Your task to perform on an android device: Open calendar and show me the first week of next month Image 0: 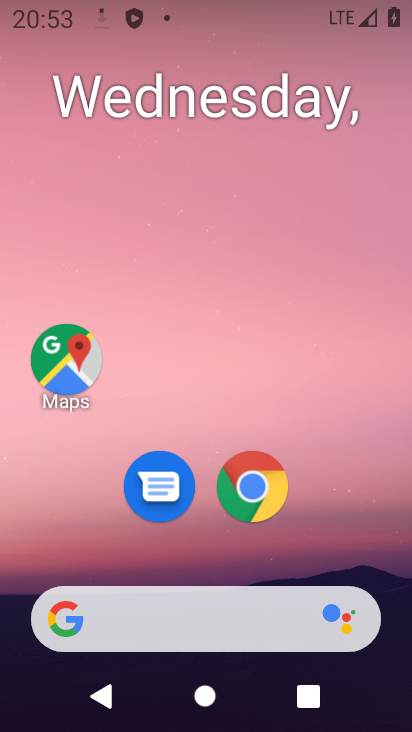
Step 0: drag from (210, 583) to (271, 11)
Your task to perform on an android device: Open calendar and show me the first week of next month Image 1: 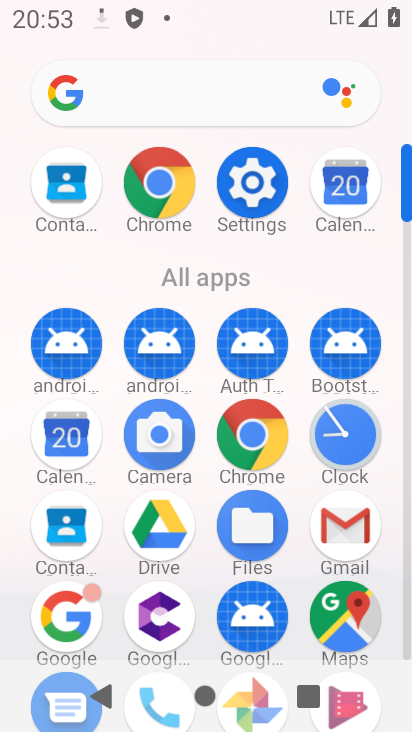
Step 1: click (57, 440)
Your task to perform on an android device: Open calendar and show me the first week of next month Image 2: 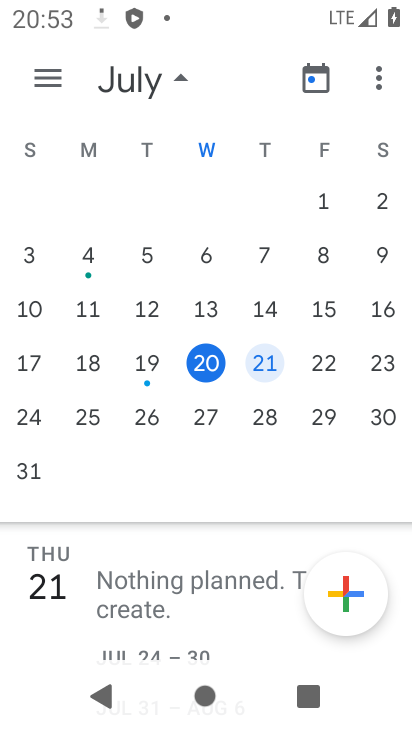
Step 2: task complete